Your task to perform on an android device: toggle wifi Image 0: 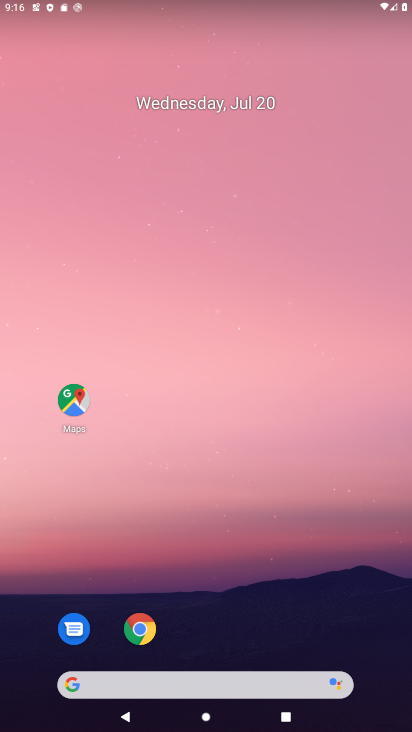
Step 0: press home button
Your task to perform on an android device: toggle wifi Image 1: 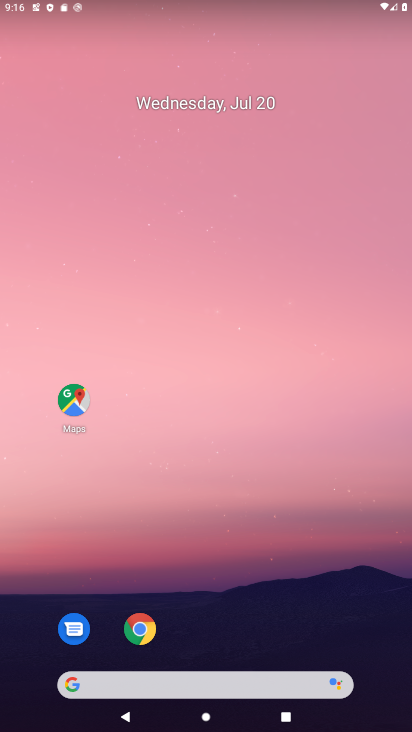
Step 1: drag from (398, 11) to (360, 644)
Your task to perform on an android device: toggle wifi Image 2: 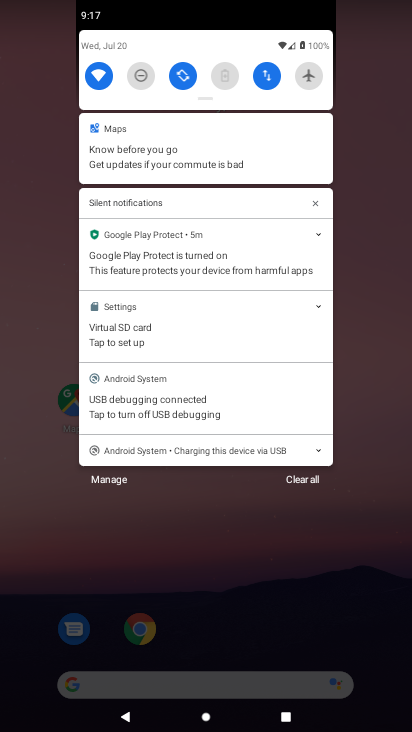
Step 2: click (87, 72)
Your task to perform on an android device: toggle wifi Image 3: 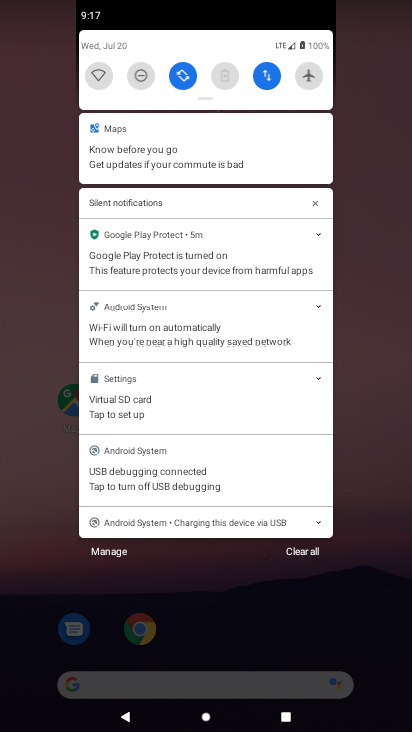
Step 3: task complete